Your task to perform on an android device: Open the web browser Image 0: 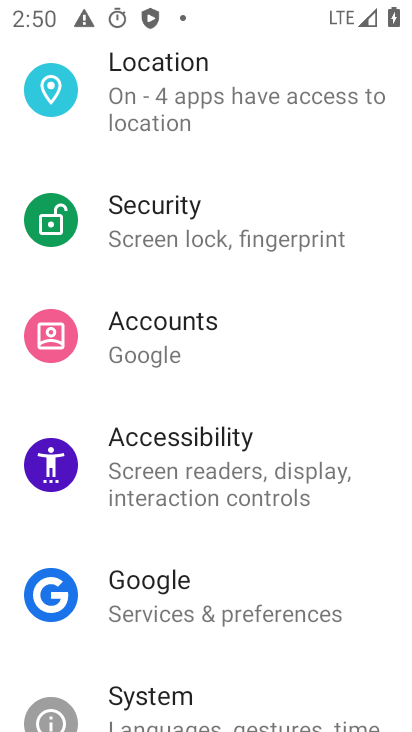
Step 0: press home button
Your task to perform on an android device: Open the web browser Image 1: 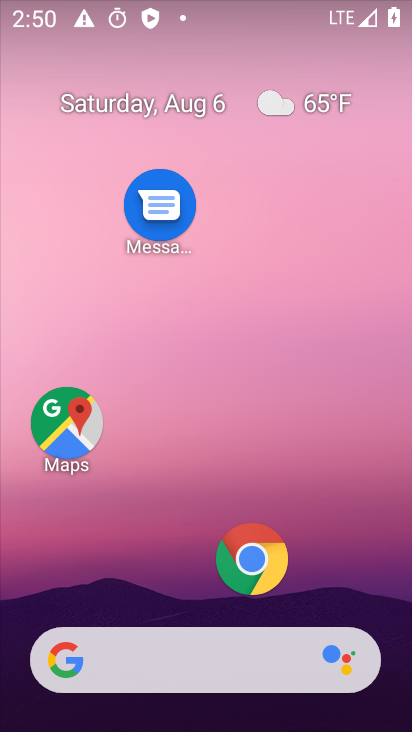
Step 1: click (253, 558)
Your task to perform on an android device: Open the web browser Image 2: 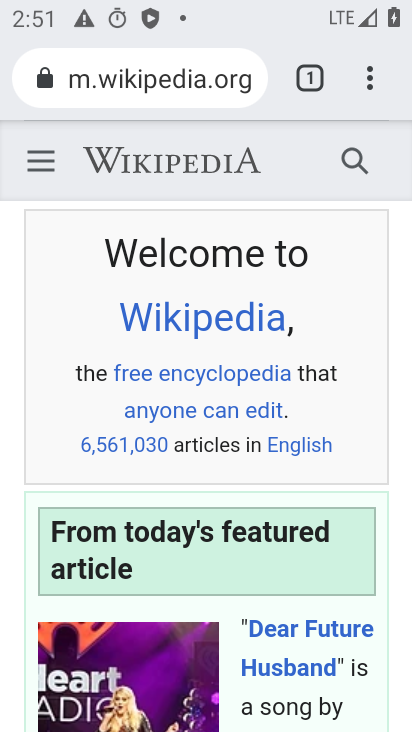
Step 2: task complete